Your task to perform on an android device: Open Youtube and go to "Your channel" Image 0: 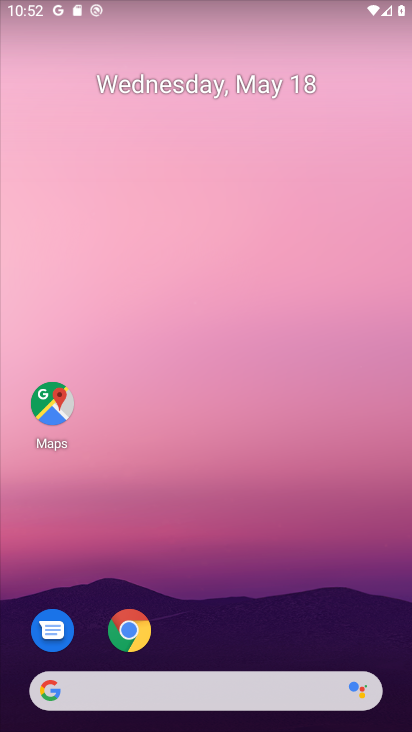
Step 0: drag from (268, 654) to (268, 184)
Your task to perform on an android device: Open Youtube and go to "Your channel" Image 1: 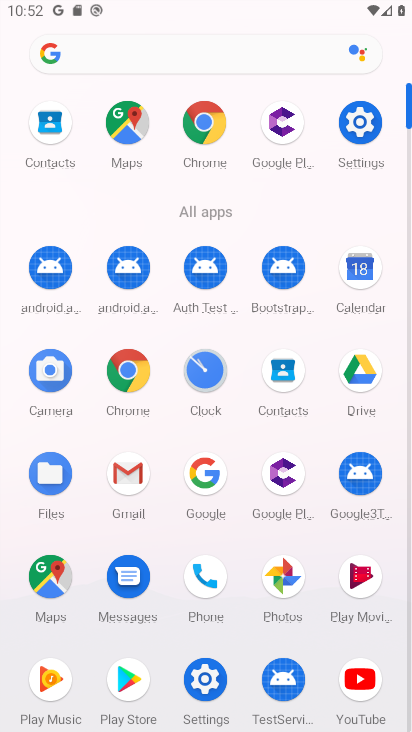
Step 1: drag from (154, 217) to (173, 33)
Your task to perform on an android device: Open Youtube and go to "Your channel" Image 2: 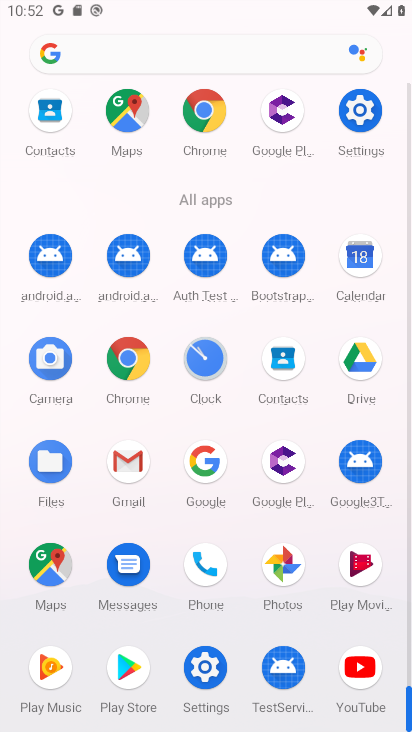
Step 2: click (346, 666)
Your task to perform on an android device: Open Youtube and go to "Your channel" Image 3: 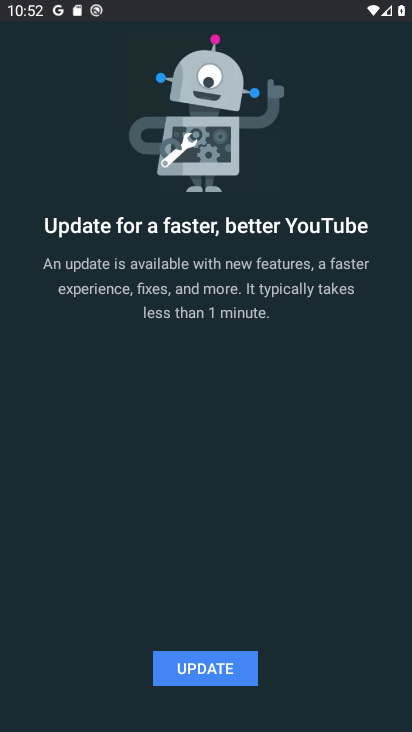
Step 3: click (233, 660)
Your task to perform on an android device: Open Youtube and go to "Your channel" Image 4: 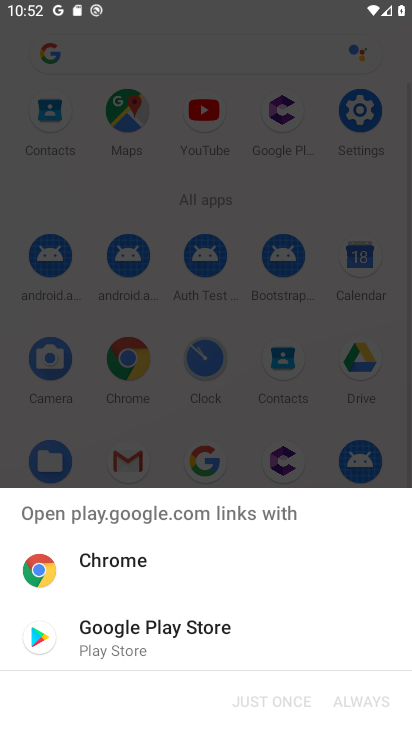
Step 4: click (173, 610)
Your task to perform on an android device: Open Youtube and go to "Your channel" Image 5: 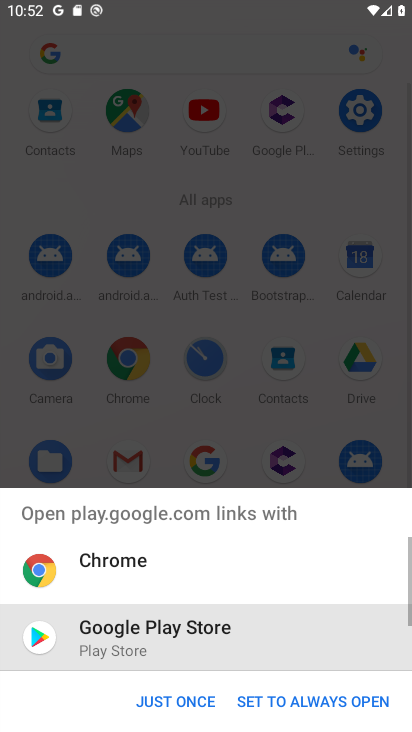
Step 5: click (197, 703)
Your task to perform on an android device: Open Youtube and go to "Your channel" Image 6: 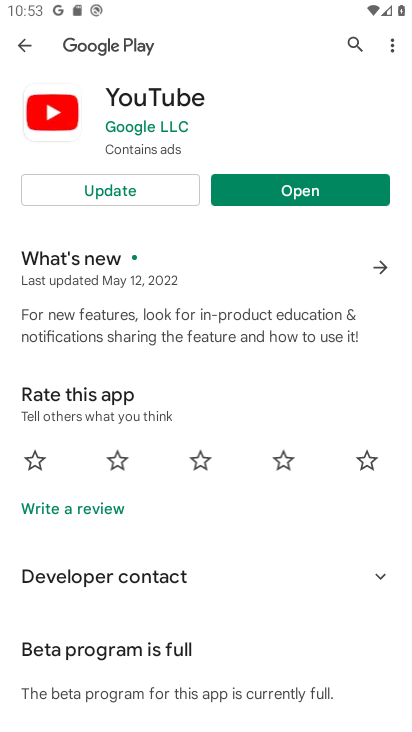
Step 6: click (130, 193)
Your task to perform on an android device: Open Youtube and go to "Your channel" Image 7: 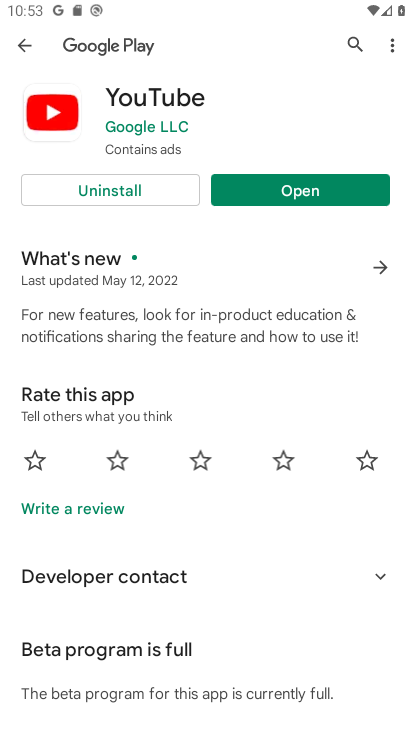
Step 7: click (273, 193)
Your task to perform on an android device: Open Youtube and go to "Your channel" Image 8: 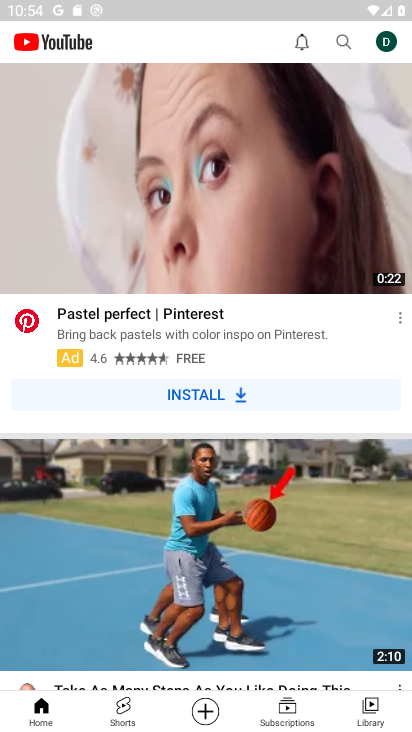
Step 8: click (377, 708)
Your task to perform on an android device: Open Youtube and go to "Your channel" Image 9: 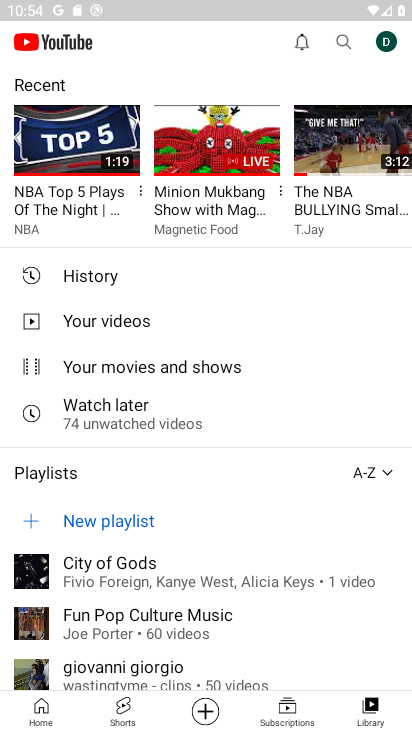
Step 9: click (389, 46)
Your task to perform on an android device: Open Youtube and go to "Your channel" Image 10: 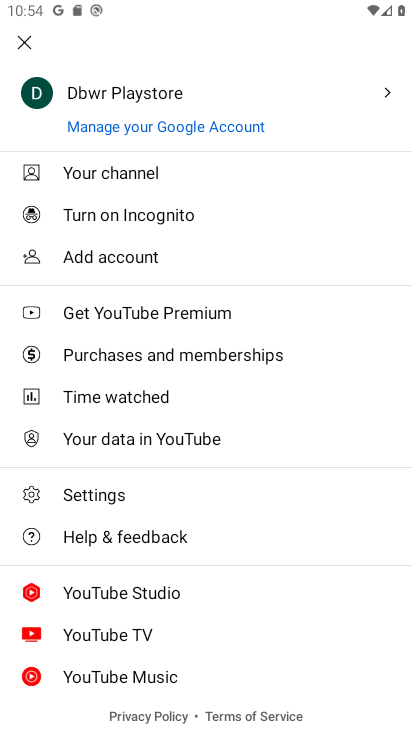
Step 10: click (148, 165)
Your task to perform on an android device: Open Youtube and go to "Your channel" Image 11: 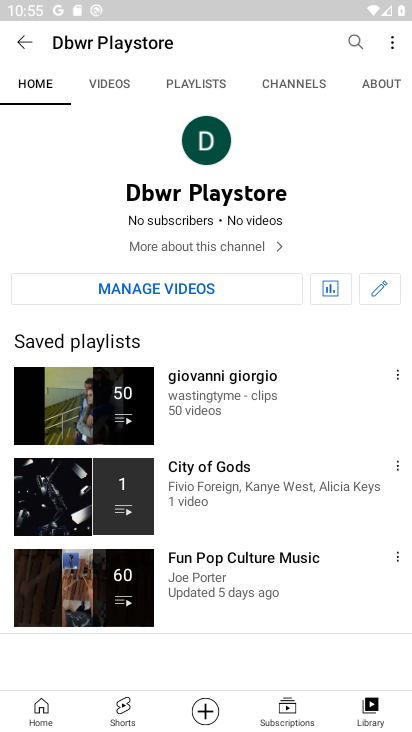
Step 11: task complete